Your task to perform on an android device: uninstall "Viber Messenger" Image 0: 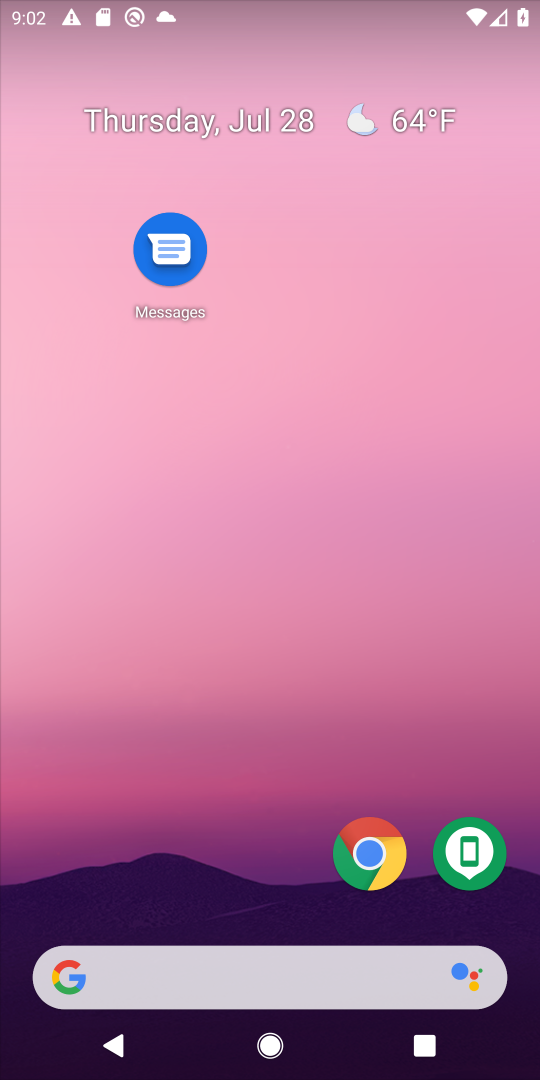
Step 0: drag from (234, 624) to (351, 8)
Your task to perform on an android device: uninstall "Viber Messenger" Image 1: 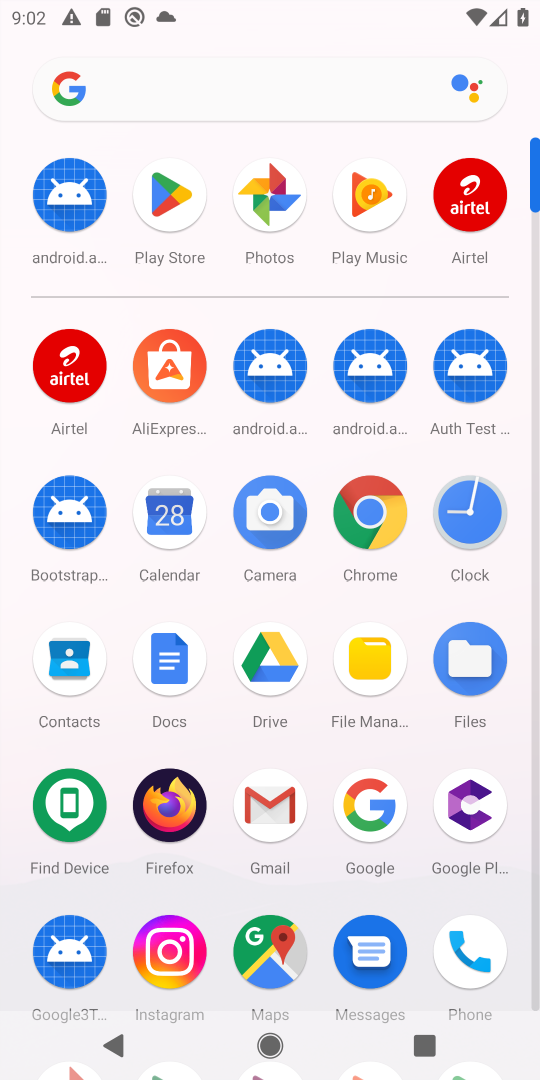
Step 1: click (187, 189)
Your task to perform on an android device: uninstall "Viber Messenger" Image 2: 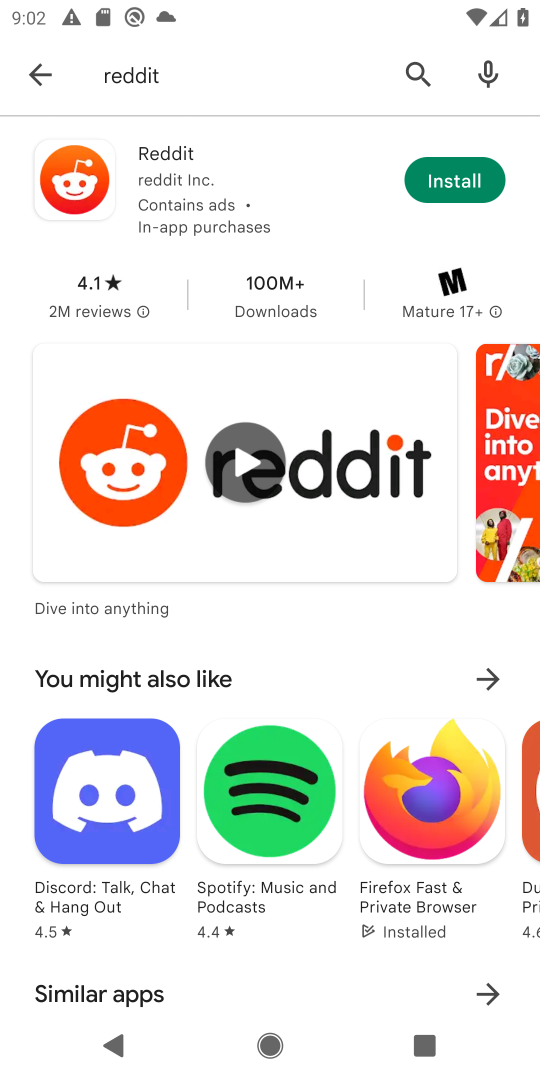
Step 2: click (38, 63)
Your task to perform on an android device: uninstall "Viber Messenger" Image 3: 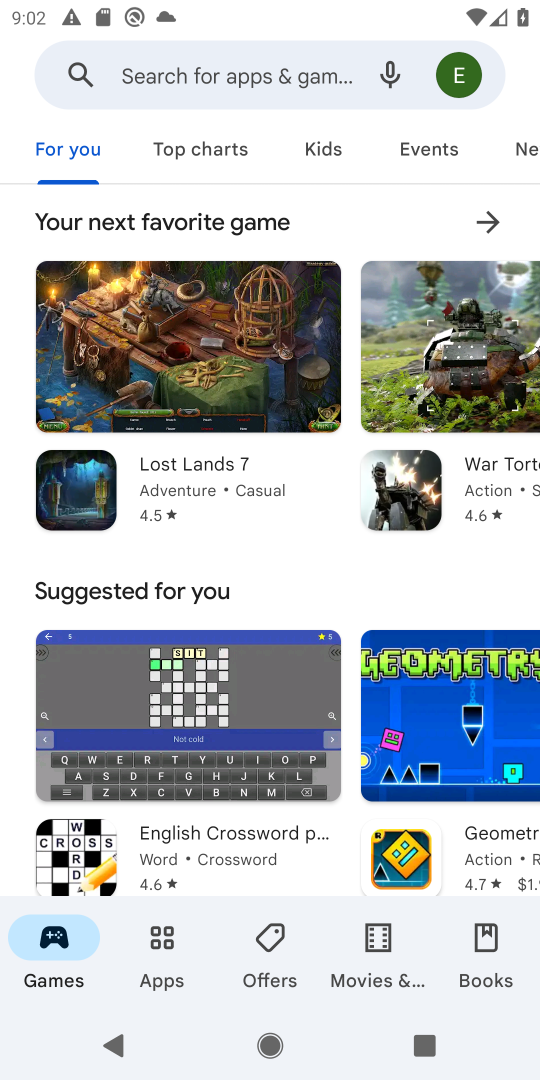
Step 3: click (150, 72)
Your task to perform on an android device: uninstall "Viber Messenger" Image 4: 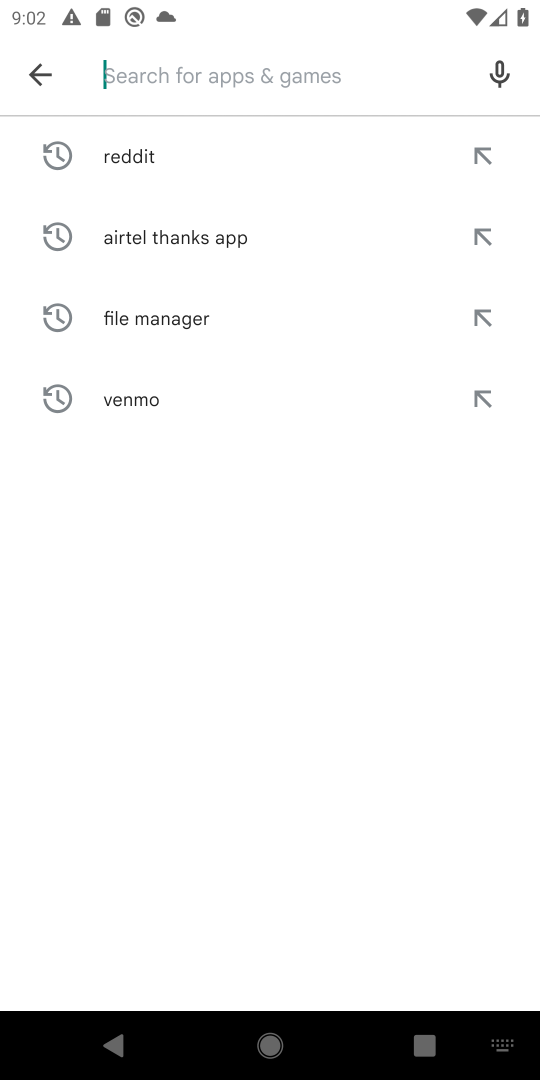
Step 4: type "Viber Messenger"
Your task to perform on an android device: uninstall "Viber Messenger" Image 5: 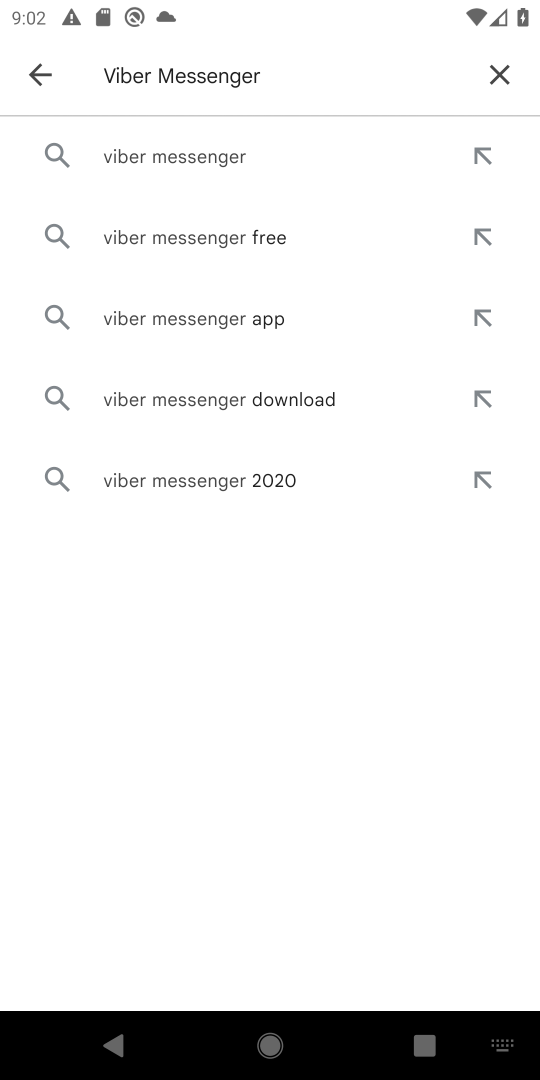
Step 5: click (218, 160)
Your task to perform on an android device: uninstall "Viber Messenger" Image 6: 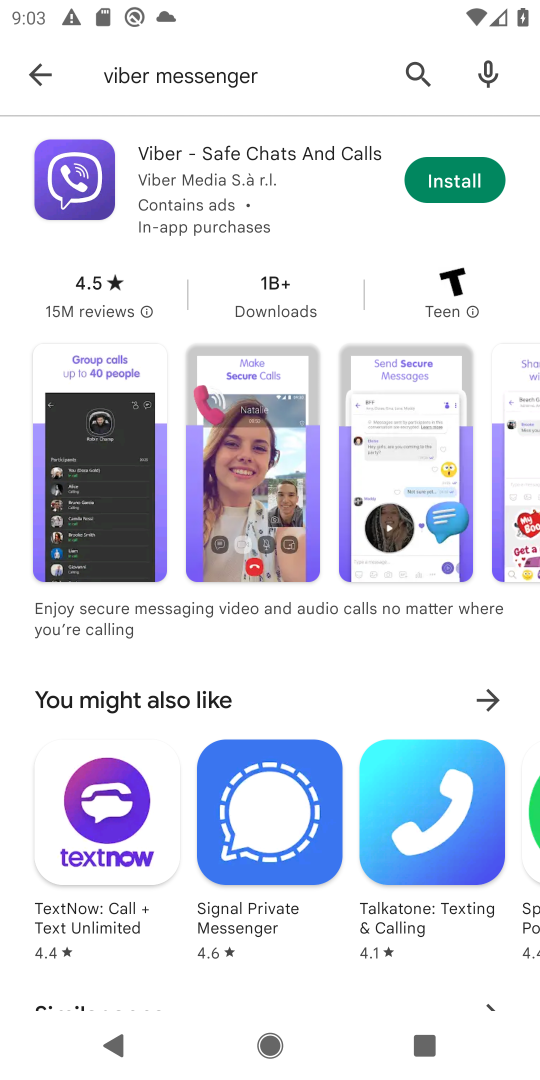
Step 6: click (443, 194)
Your task to perform on an android device: uninstall "Viber Messenger" Image 7: 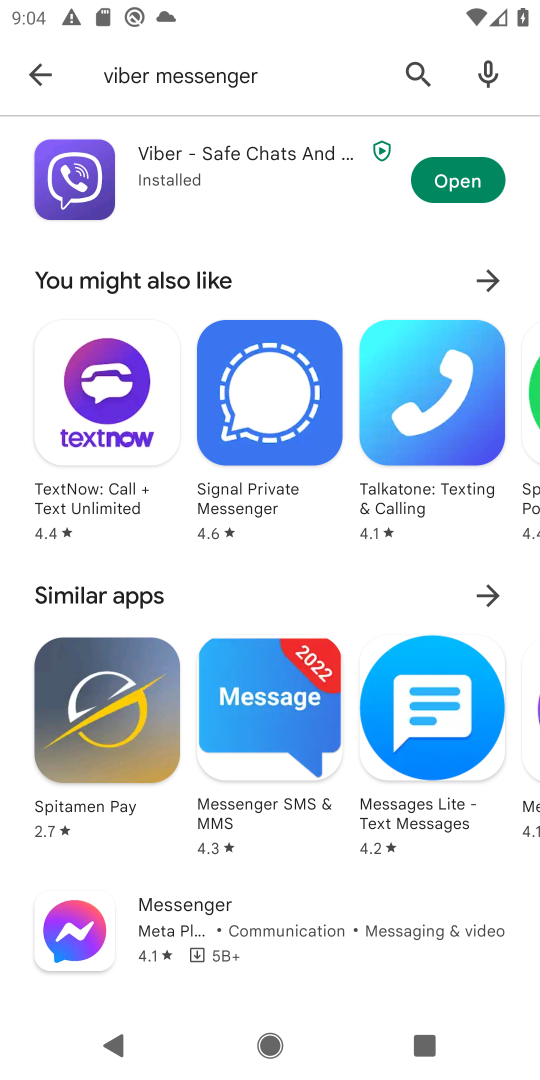
Step 7: click (428, 173)
Your task to perform on an android device: uninstall "Viber Messenger" Image 8: 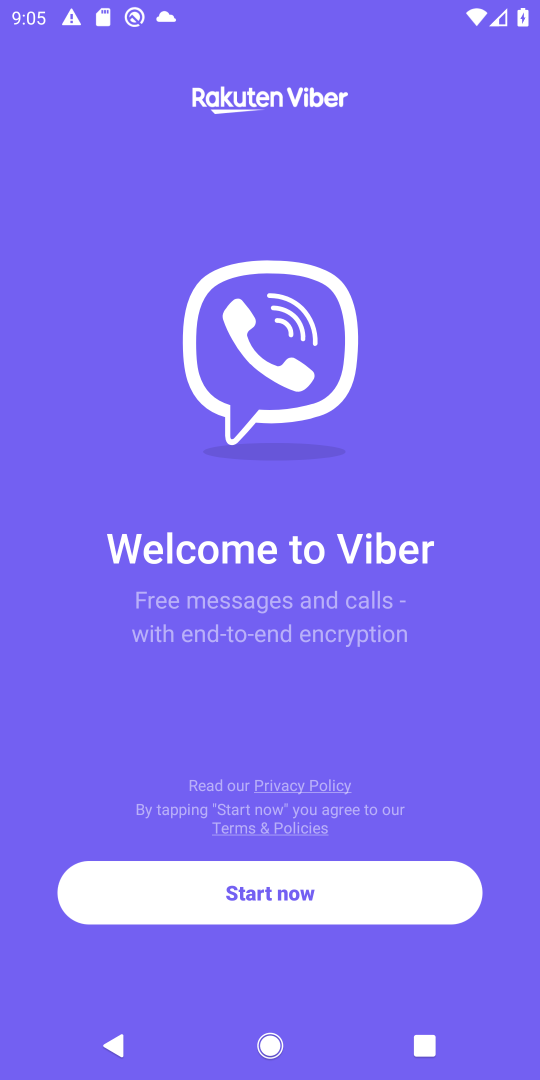
Step 8: press home button
Your task to perform on an android device: uninstall "Viber Messenger" Image 9: 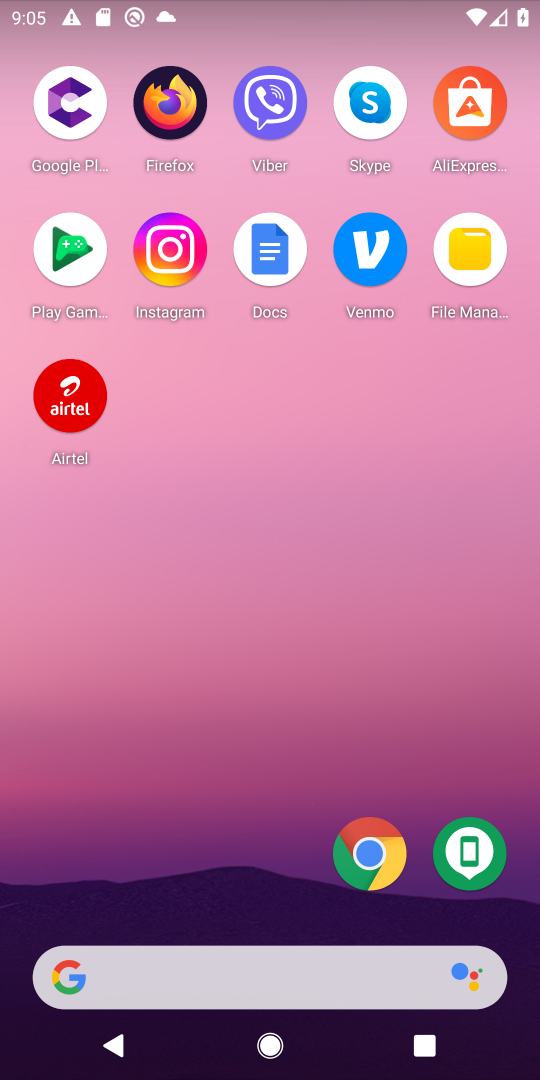
Step 9: drag from (290, 786) to (337, 62)
Your task to perform on an android device: uninstall "Viber Messenger" Image 10: 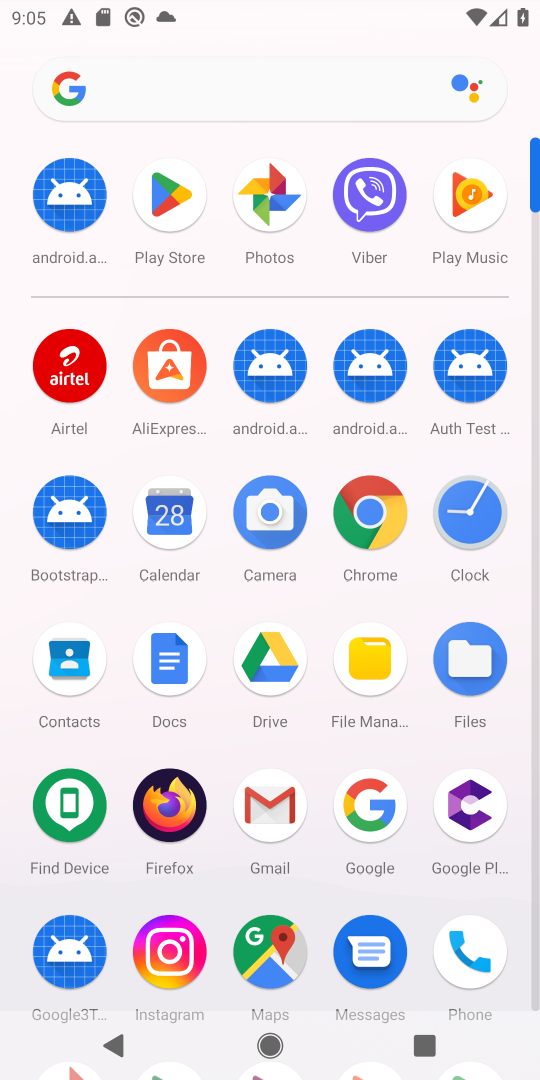
Step 10: click (161, 232)
Your task to perform on an android device: uninstall "Viber Messenger" Image 11: 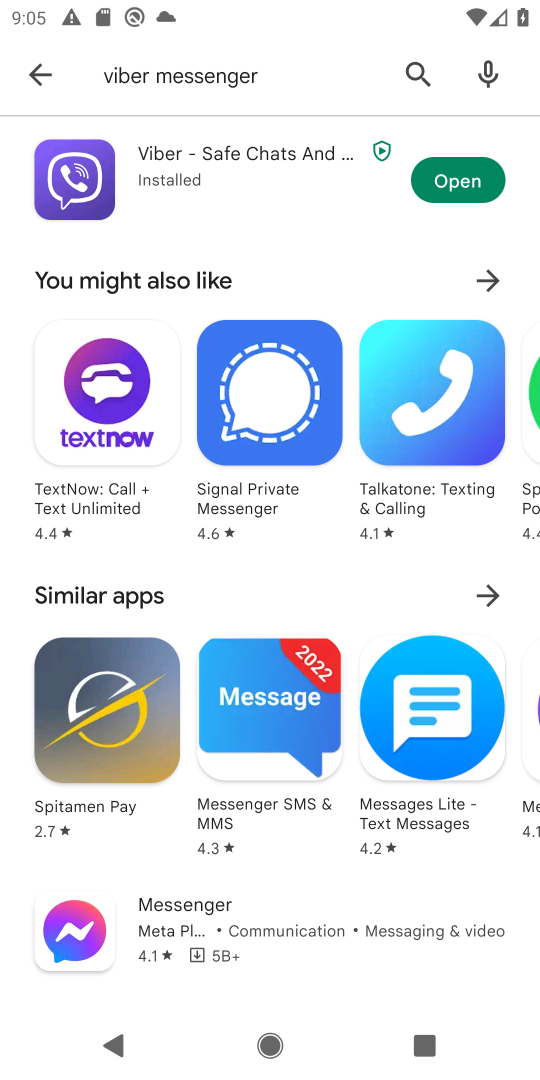
Step 11: click (34, 89)
Your task to perform on an android device: uninstall "Viber Messenger" Image 12: 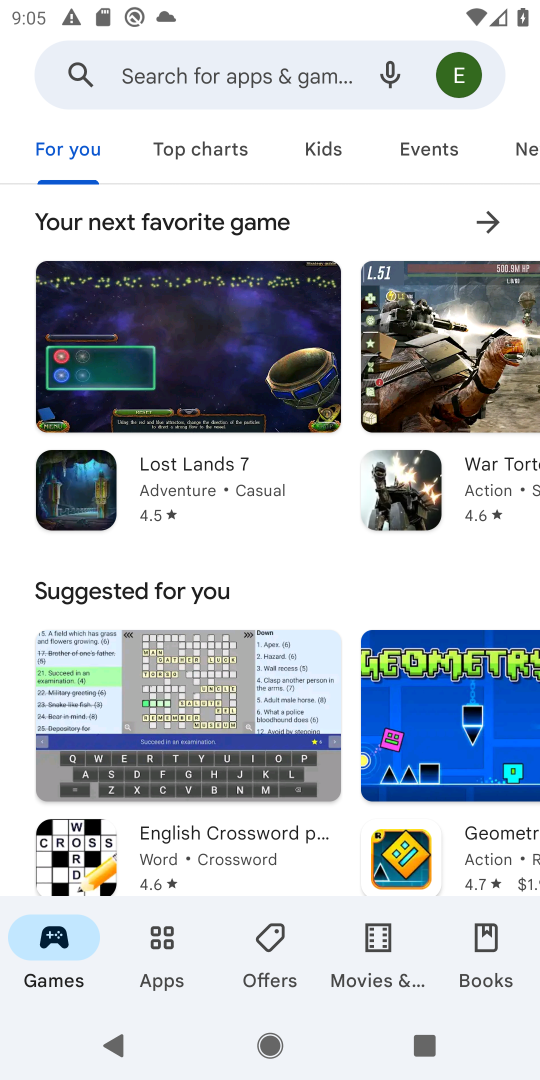
Step 12: click (184, 83)
Your task to perform on an android device: uninstall "Viber Messenger" Image 13: 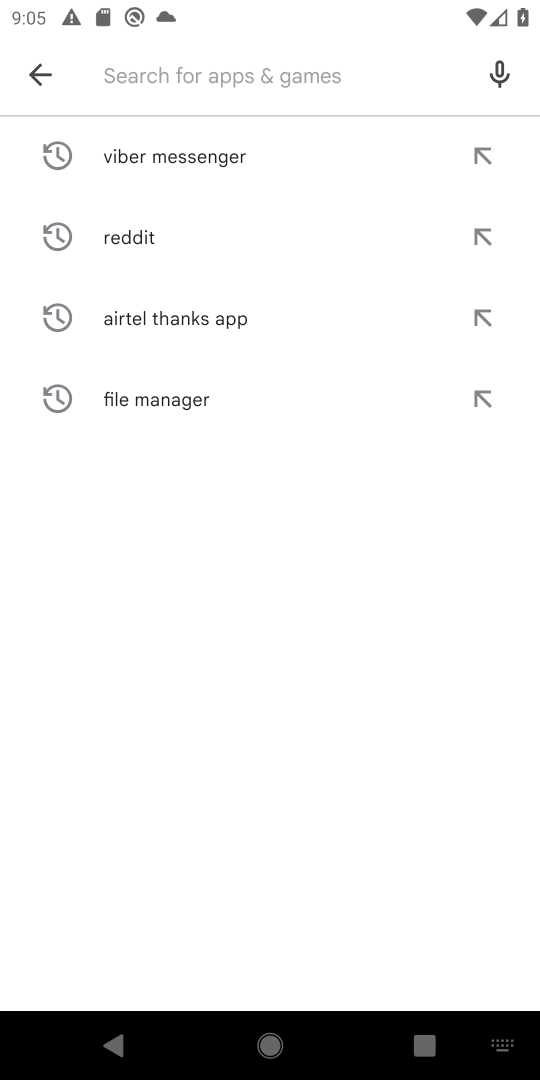
Step 13: click (233, 155)
Your task to perform on an android device: uninstall "Viber Messenger" Image 14: 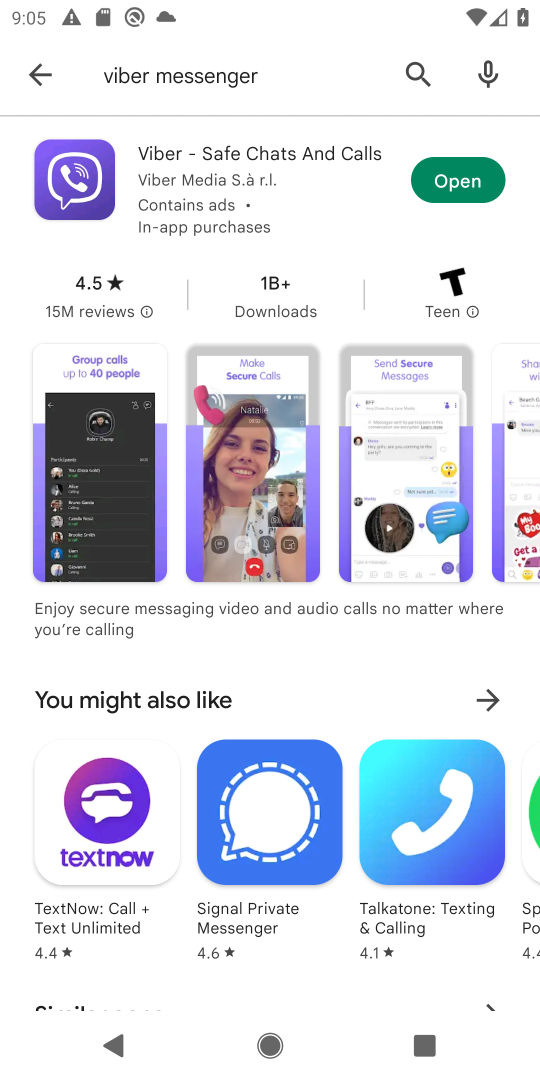
Step 14: click (93, 171)
Your task to perform on an android device: uninstall "Viber Messenger" Image 15: 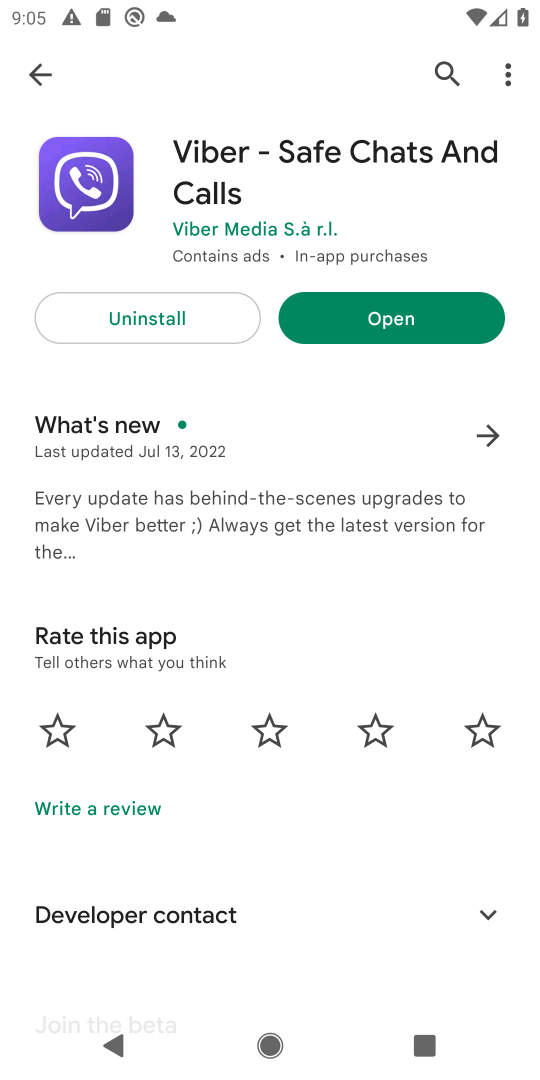
Step 15: click (116, 308)
Your task to perform on an android device: uninstall "Viber Messenger" Image 16: 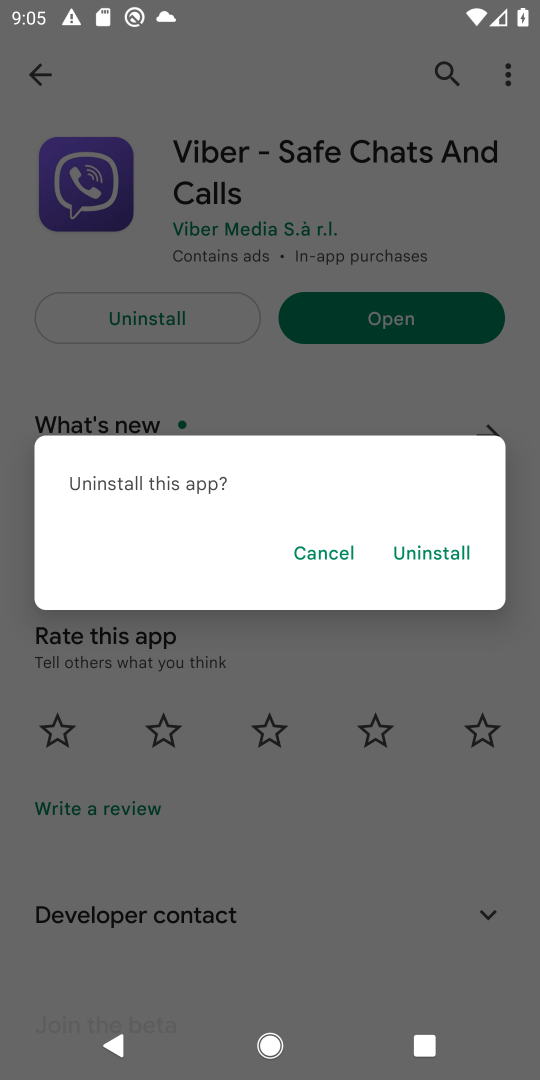
Step 16: click (453, 544)
Your task to perform on an android device: uninstall "Viber Messenger" Image 17: 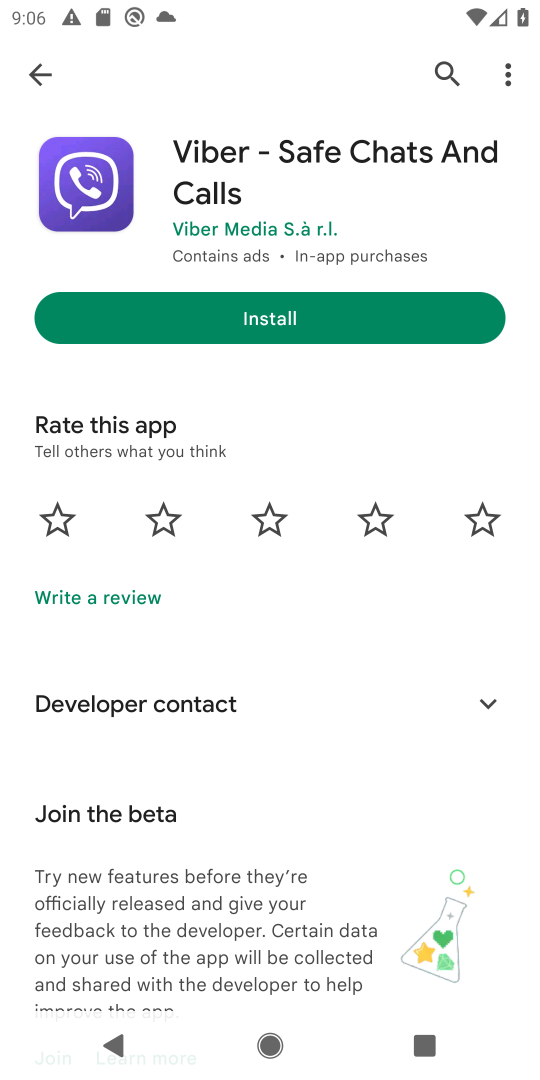
Step 17: task complete